Your task to perform on an android device: change text size in settings app Image 0: 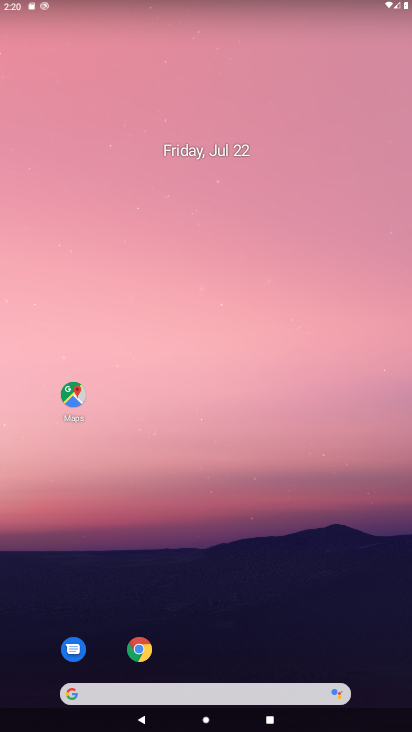
Step 0: drag from (222, 723) to (230, 70)
Your task to perform on an android device: change text size in settings app Image 1: 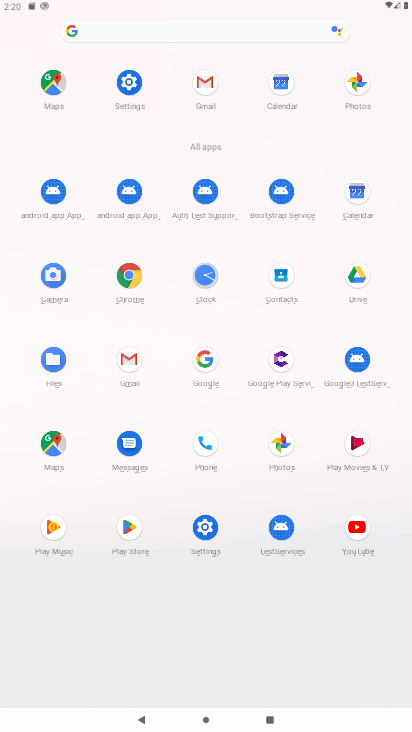
Step 1: click (206, 530)
Your task to perform on an android device: change text size in settings app Image 2: 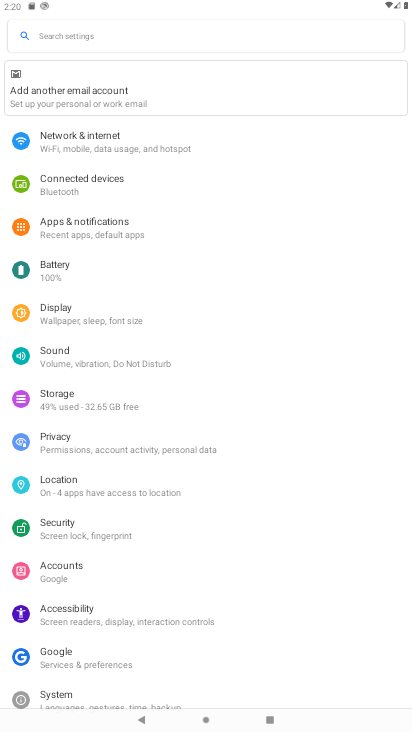
Step 2: click (90, 318)
Your task to perform on an android device: change text size in settings app Image 3: 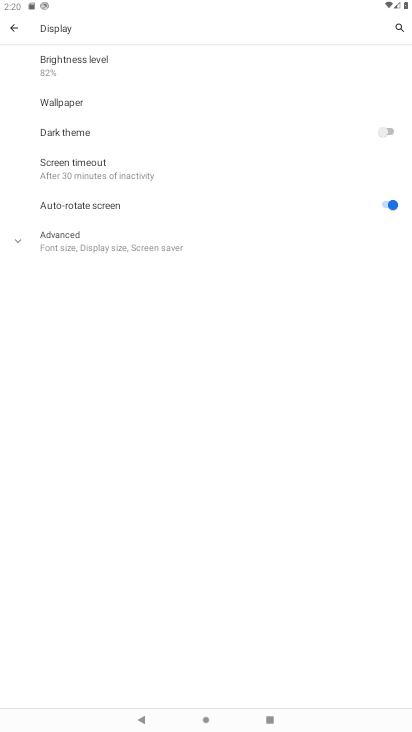
Step 3: click (101, 238)
Your task to perform on an android device: change text size in settings app Image 4: 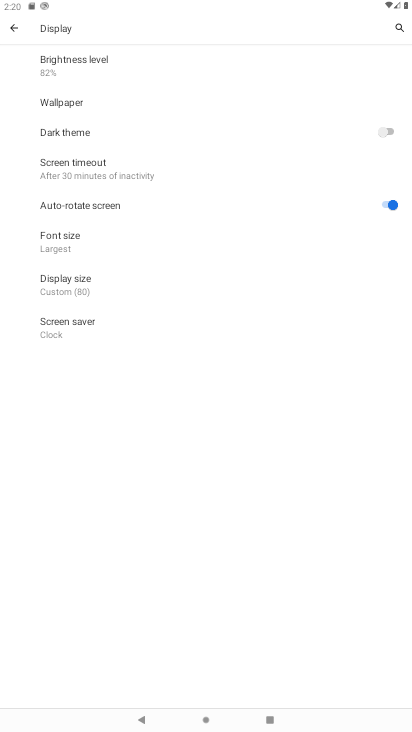
Step 4: click (54, 243)
Your task to perform on an android device: change text size in settings app Image 5: 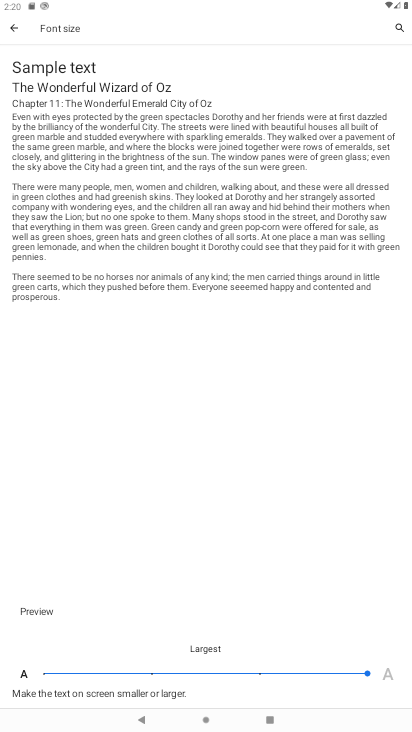
Step 5: click (268, 672)
Your task to perform on an android device: change text size in settings app Image 6: 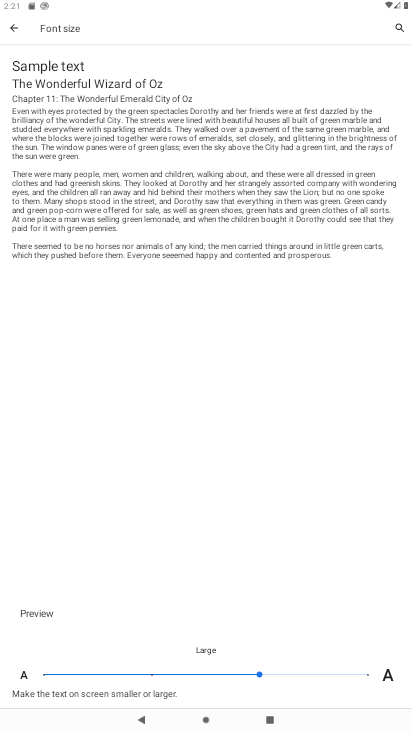
Step 6: task complete